Your task to perform on an android device: clear all cookies in the chrome app Image 0: 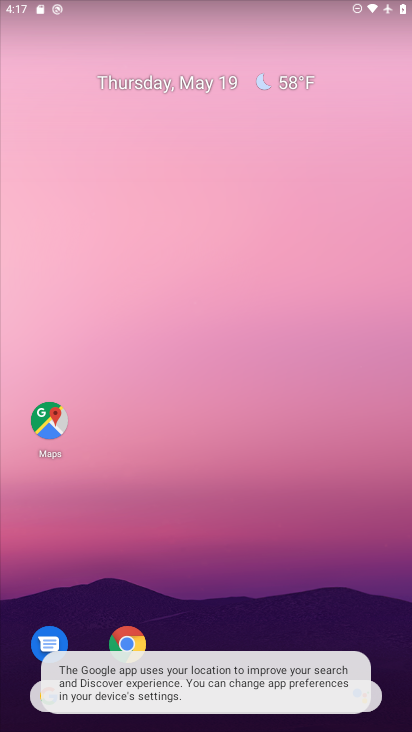
Step 0: drag from (270, 582) to (140, 0)
Your task to perform on an android device: clear all cookies in the chrome app Image 1: 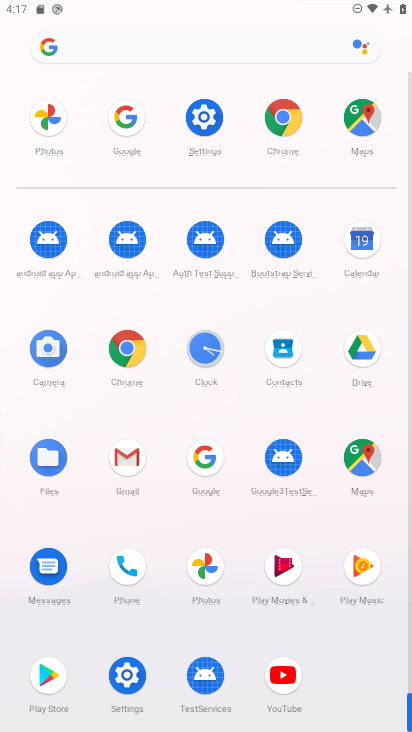
Step 1: drag from (11, 552) to (7, 209)
Your task to perform on an android device: clear all cookies in the chrome app Image 2: 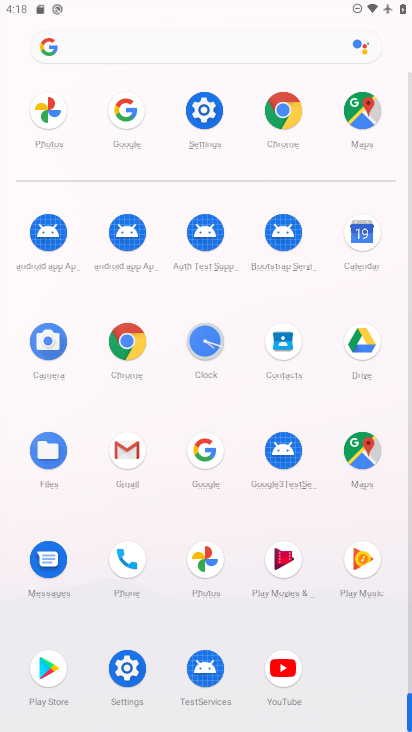
Step 2: click (124, 342)
Your task to perform on an android device: clear all cookies in the chrome app Image 3: 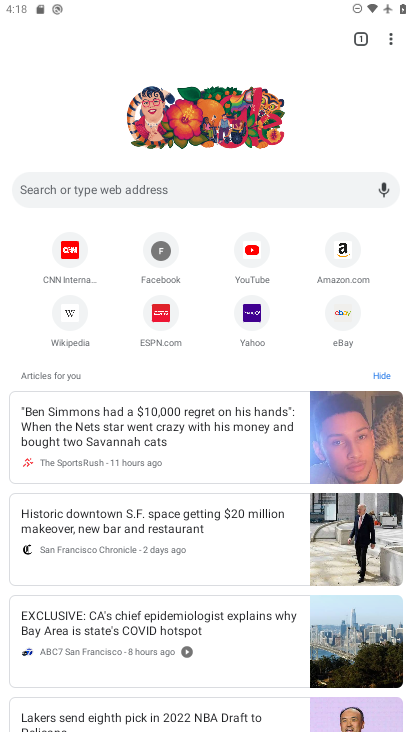
Step 3: drag from (392, 32) to (260, 319)
Your task to perform on an android device: clear all cookies in the chrome app Image 4: 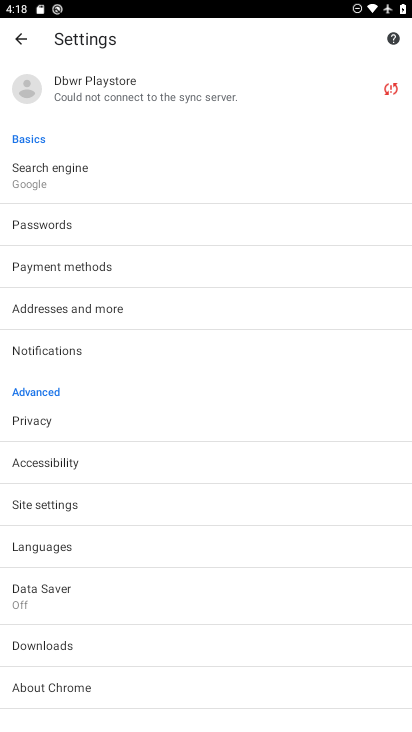
Step 4: drag from (177, 650) to (201, 236)
Your task to perform on an android device: clear all cookies in the chrome app Image 5: 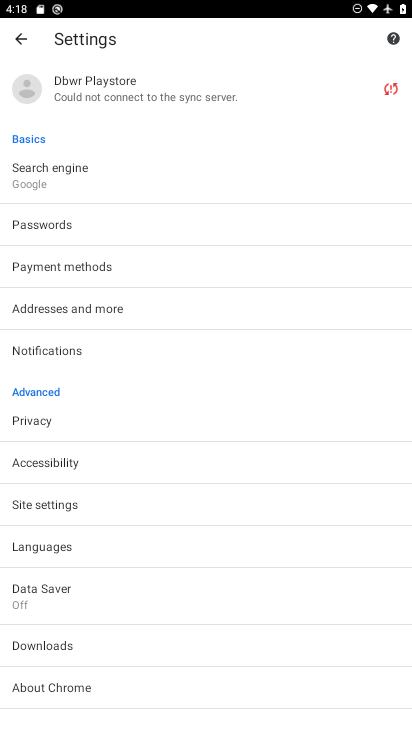
Step 5: click (65, 412)
Your task to perform on an android device: clear all cookies in the chrome app Image 6: 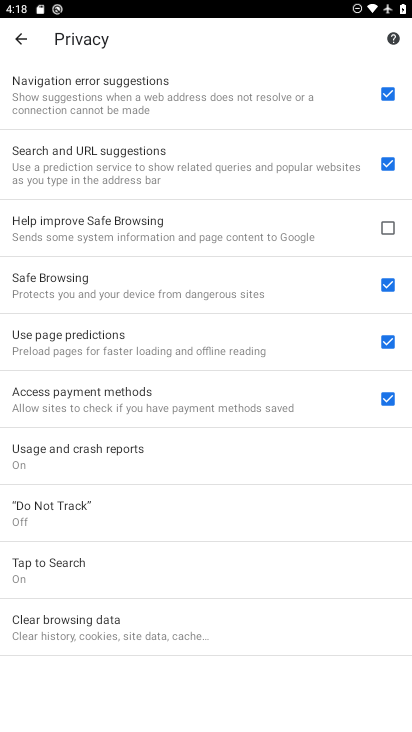
Step 6: drag from (186, 564) to (209, 209)
Your task to perform on an android device: clear all cookies in the chrome app Image 7: 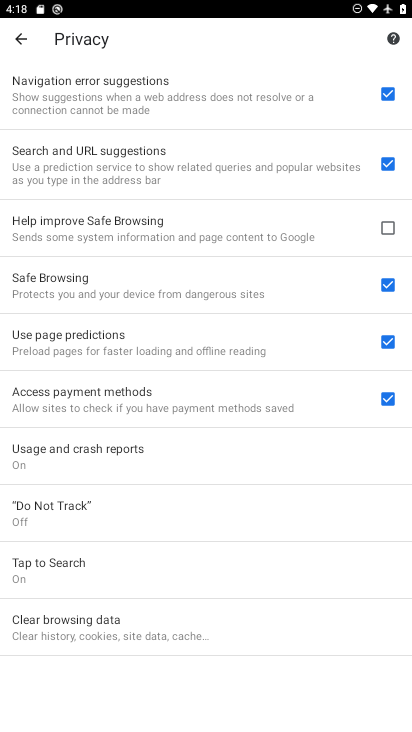
Step 7: click (129, 632)
Your task to perform on an android device: clear all cookies in the chrome app Image 8: 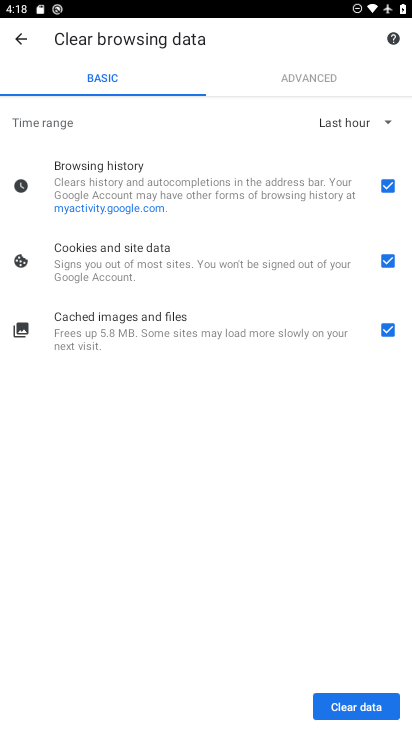
Step 8: click (345, 701)
Your task to perform on an android device: clear all cookies in the chrome app Image 9: 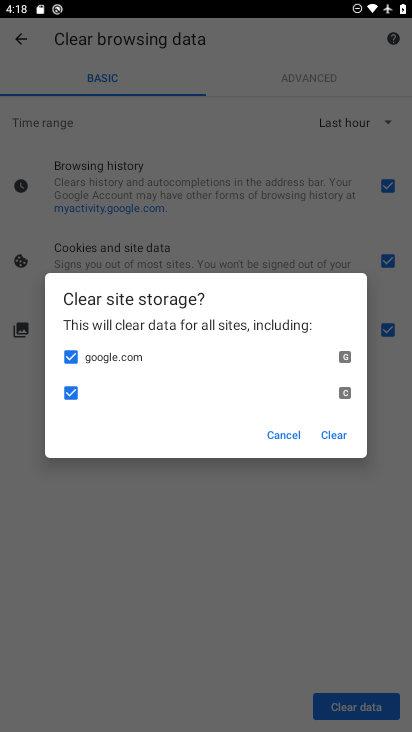
Step 9: click (340, 427)
Your task to perform on an android device: clear all cookies in the chrome app Image 10: 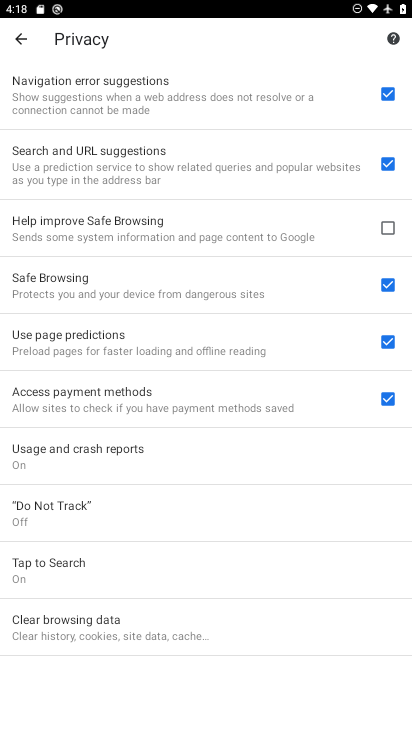
Step 10: task complete